Your task to perform on an android device: Go to settings Image 0: 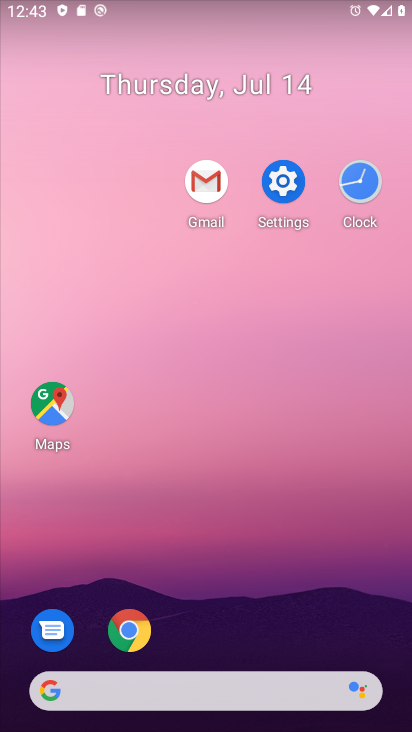
Step 0: click (275, 191)
Your task to perform on an android device: Go to settings Image 1: 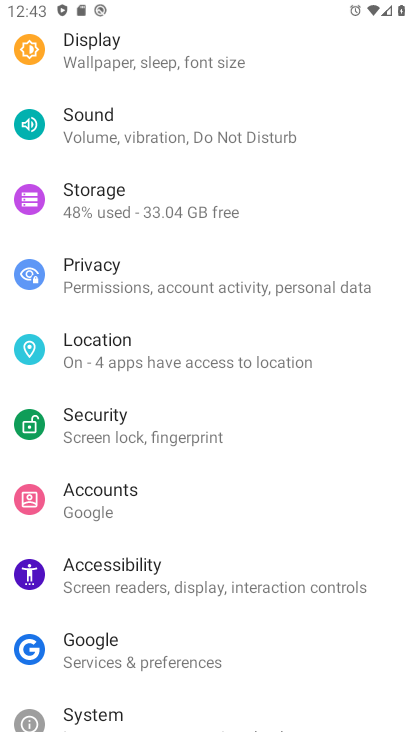
Step 1: task complete